Your task to perform on an android device: see creations saved in the google photos Image 0: 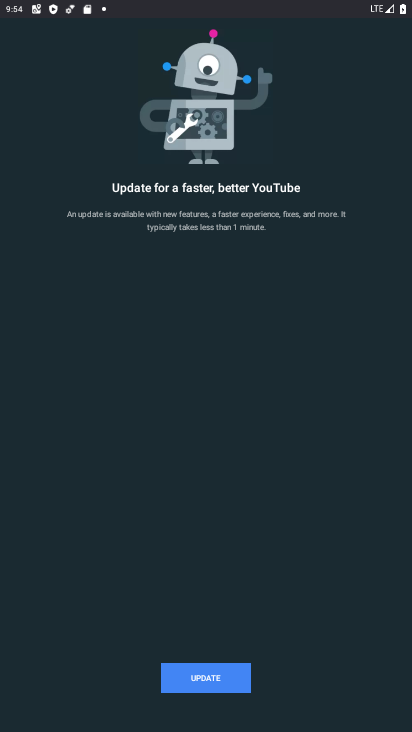
Step 0: press home button
Your task to perform on an android device: see creations saved in the google photos Image 1: 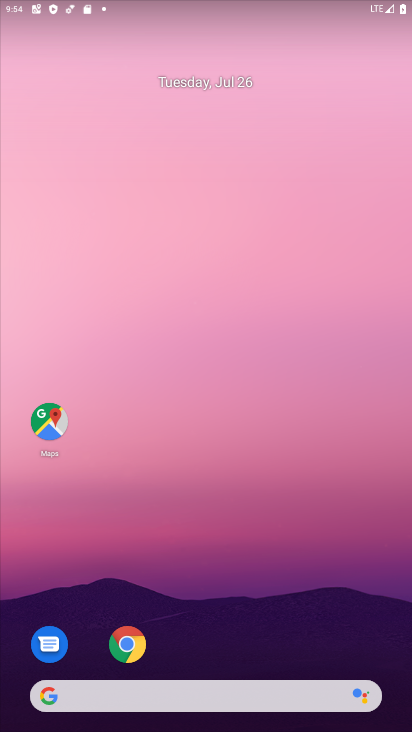
Step 1: drag from (250, 599) to (234, 1)
Your task to perform on an android device: see creations saved in the google photos Image 2: 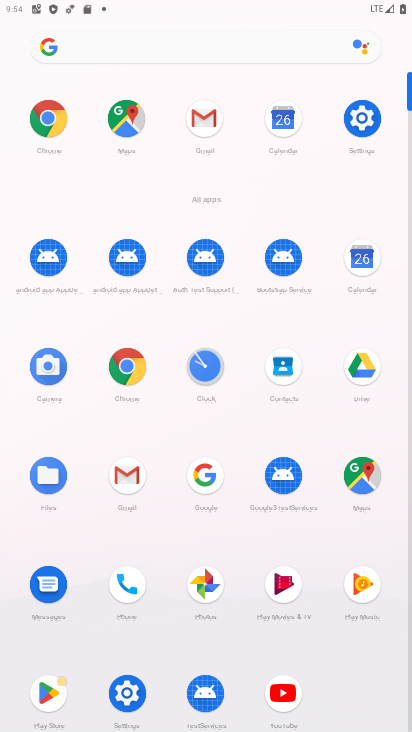
Step 2: click (204, 583)
Your task to perform on an android device: see creations saved in the google photos Image 3: 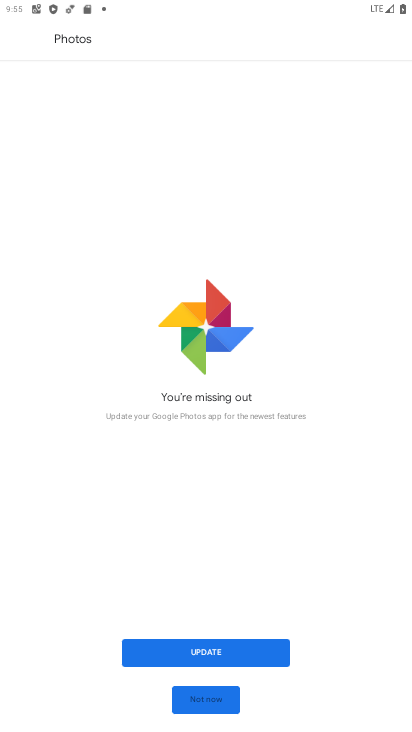
Step 3: click (212, 695)
Your task to perform on an android device: see creations saved in the google photos Image 4: 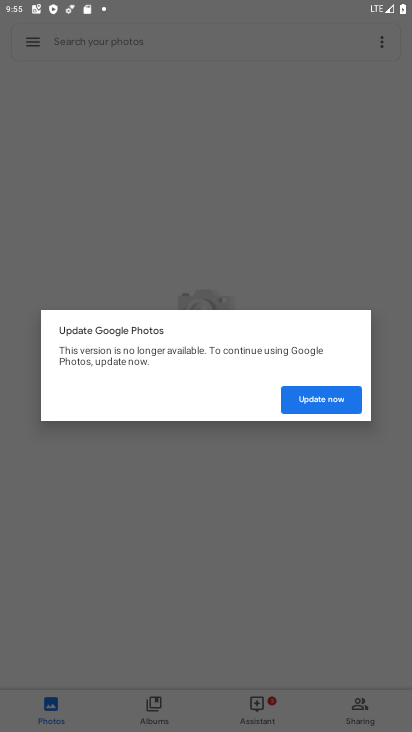
Step 4: click (305, 399)
Your task to perform on an android device: see creations saved in the google photos Image 5: 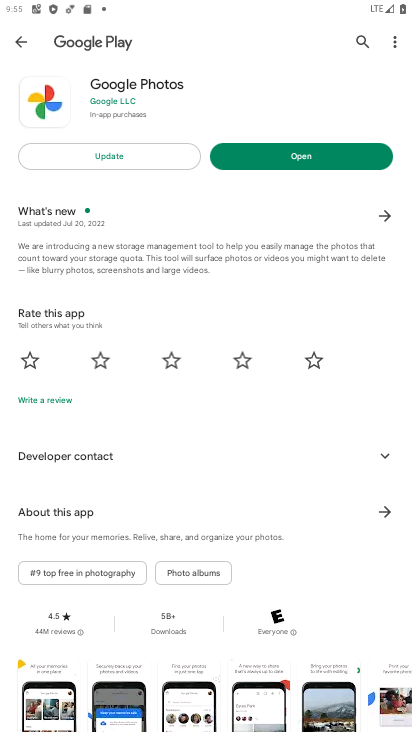
Step 5: click (279, 165)
Your task to perform on an android device: see creations saved in the google photos Image 6: 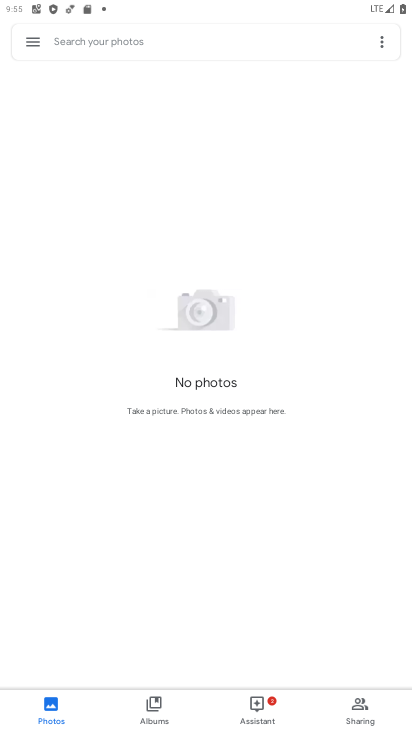
Step 6: click (70, 43)
Your task to perform on an android device: see creations saved in the google photos Image 7: 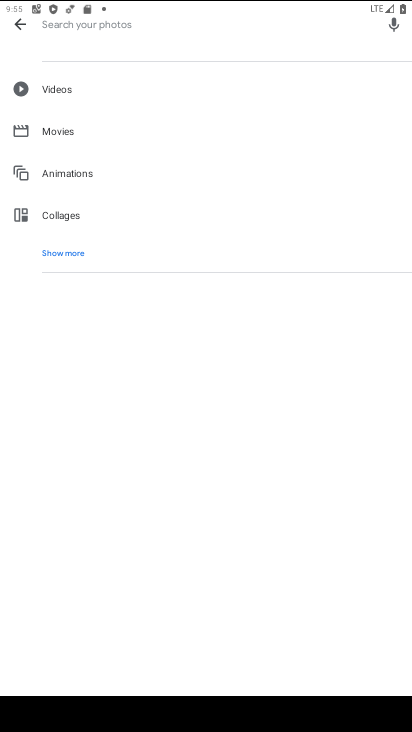
Step 7: click (55, 256)
Your task to perform on an android device: see creations saved in the google photos Image 8: 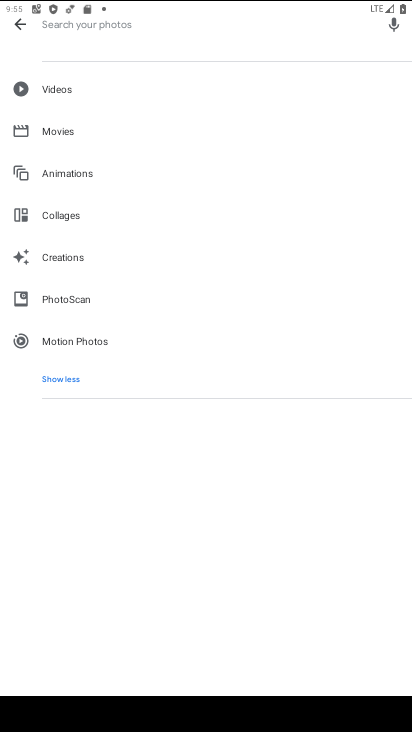
Step 8: click (55, 256)
Your task to perform on an android device: see creations saved in the google photos Image 9: 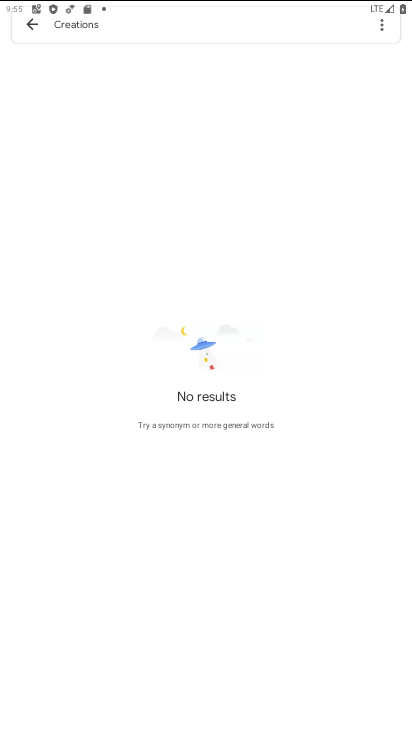
Step 9: task complete